Your task to perform on an android device: open chrome and create a bookmark for the current page Image 0: 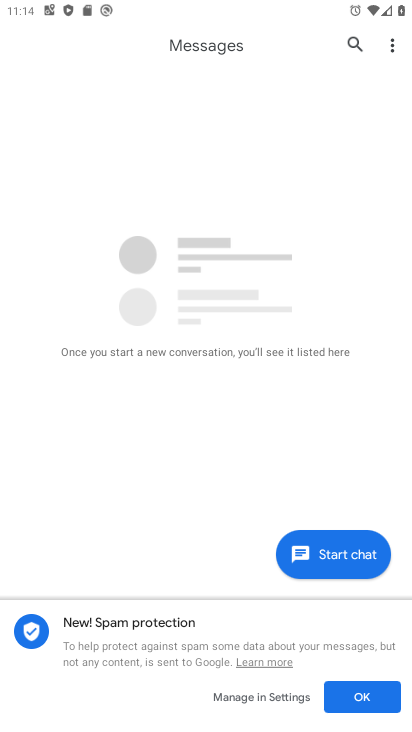
Step 0: press home button
Your task to perform on an android device: open chrome and create a bookmark for the current page Image 1: 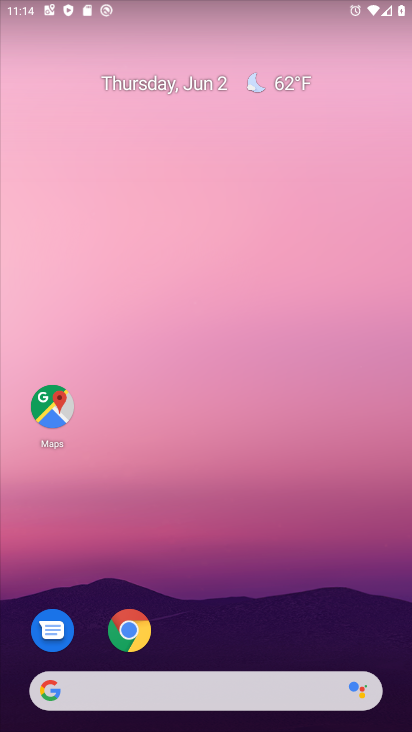
Step 1: click (131, 633)
Your task to perform on an android device: open chrome and create a bookmark for the current page Image 2: 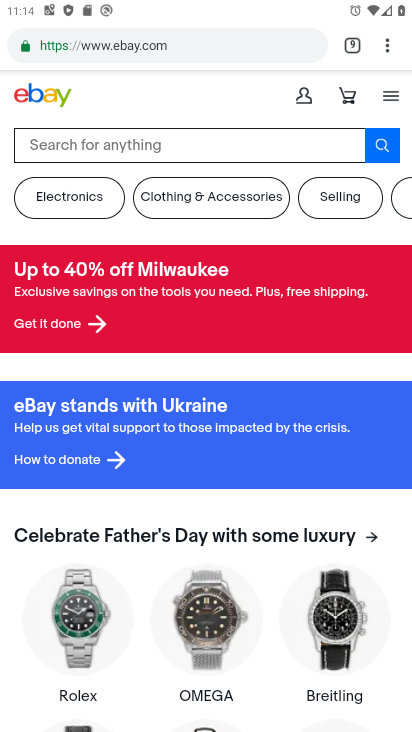
Step 2: click (384, 55)
Your task to perform on an android device: open chrome and create a bookmark for the current page Image 3: 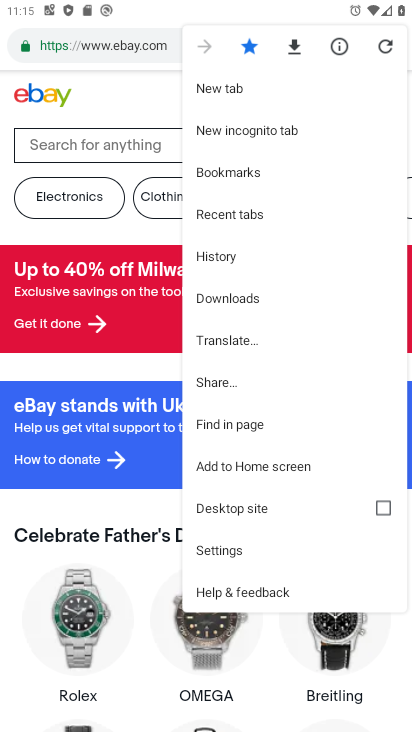
Step 3: task complete